Your task to perform on an android device: Search for pizza restaurants on Maps Image 0: 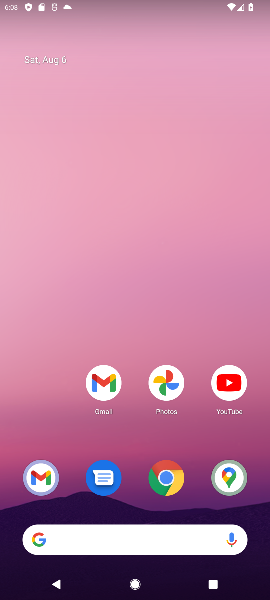
Step 0: press home button
Your task to perform on an android device: Search for pizza restaurants on Maps Image 1: 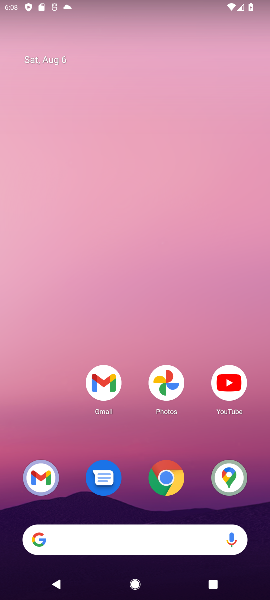
Step 1: click (236, 471)
Your task to perform on an android device: Search for pizza restaurants on Maps Image 2: 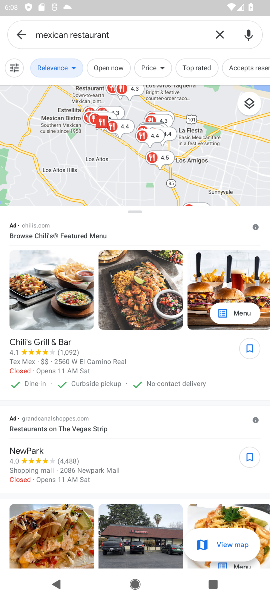
Step 2: click (21, 31)
Your task to perform on an android device: Search for pizza restaurants on Maps Image 3: 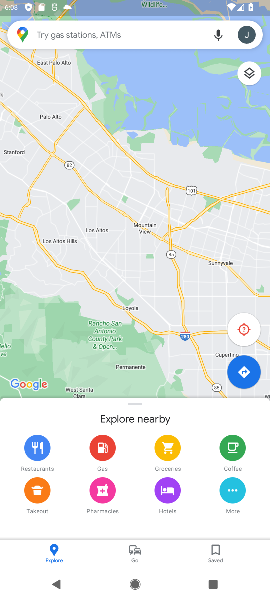
Step 3: click (134, 30)
Your task to perform on an android device: Search for pizza restaurants on Maps Image 4: 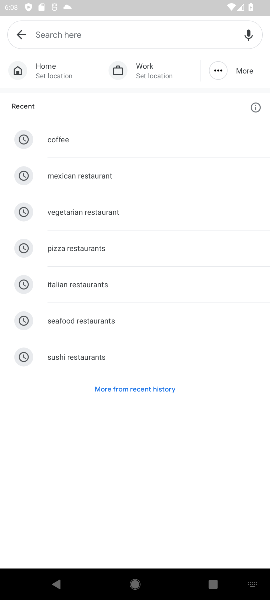
Step 4: click (67, 246)
Your task to perform on an android device: Search for pizza restaurants on Maps Image 5: 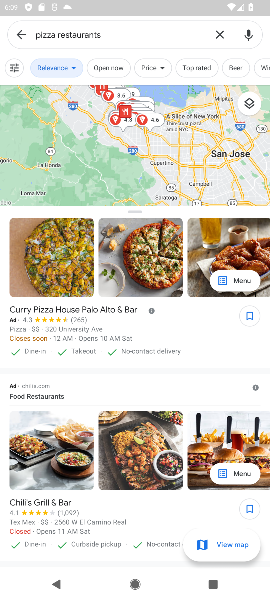
Step 5: task complete